Your task to perform on an android device: check android version Image 0: 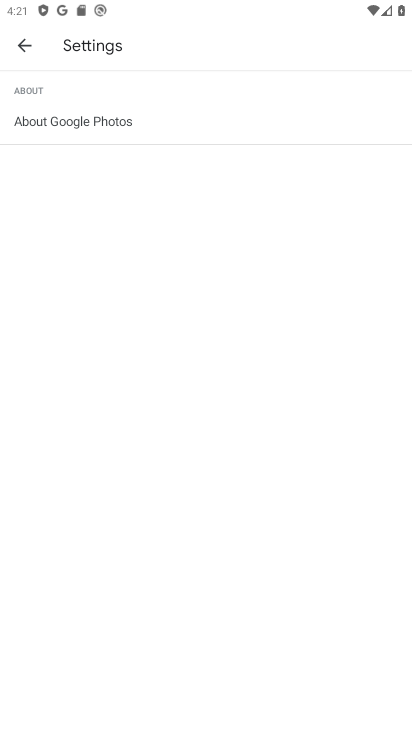
Step 0: press home button
Your task to perform on an android device: check android version Image 1: 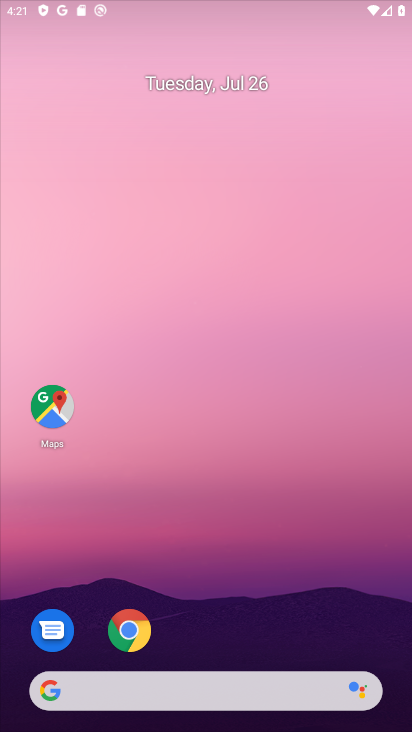
Step 1: drag from (300, 619) to (269, 198)
Your task to perform on an android device: check android version Image 2: 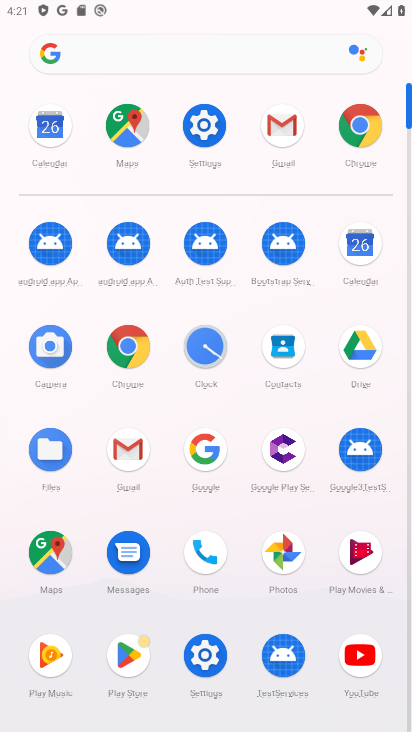
Step 2: click (209, 121)
Your task to perform on an android device: check android version Image 3: 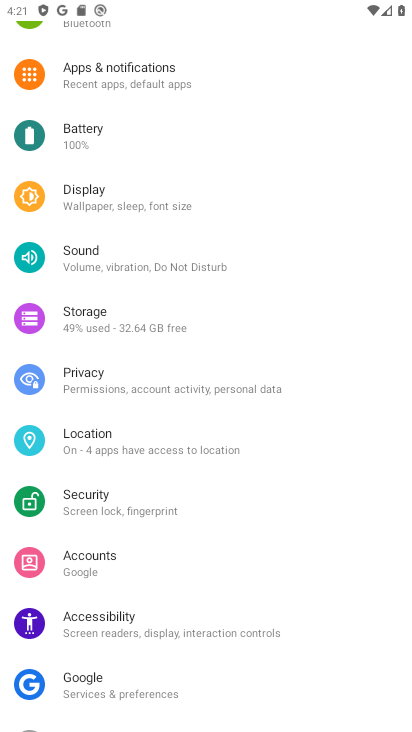
Step 3: drag from (250, 635) to (267, 88)
Your task to perform on an android device: check android version Image 4: 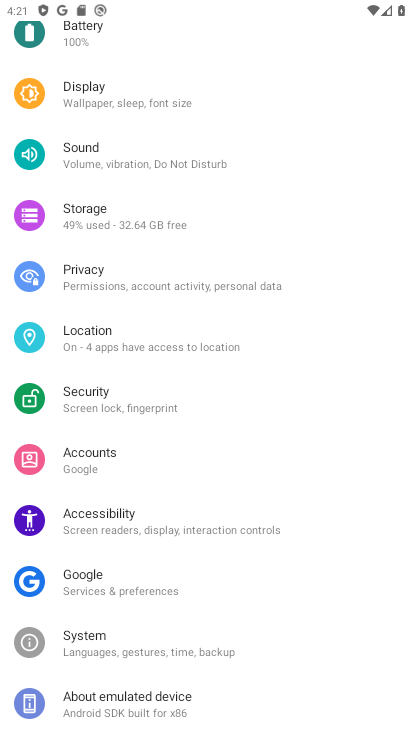
Step 4: click (169, 713)
Your task to perform on an android device: check android version Image 5: 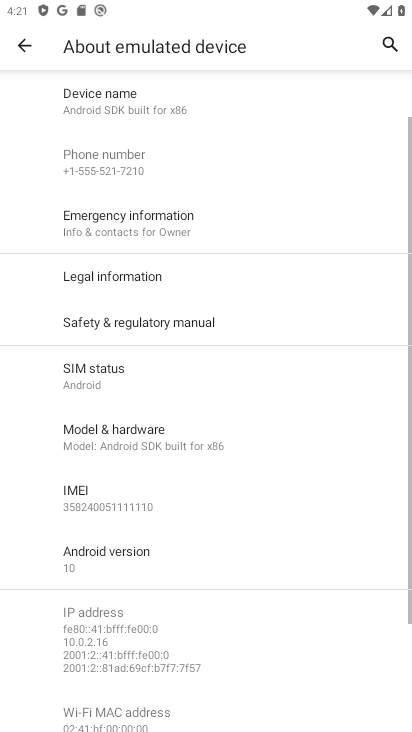
Step 5: drag from (233, 647) to (239, 163)
Your task to perform on an android device: check android version Image 6: 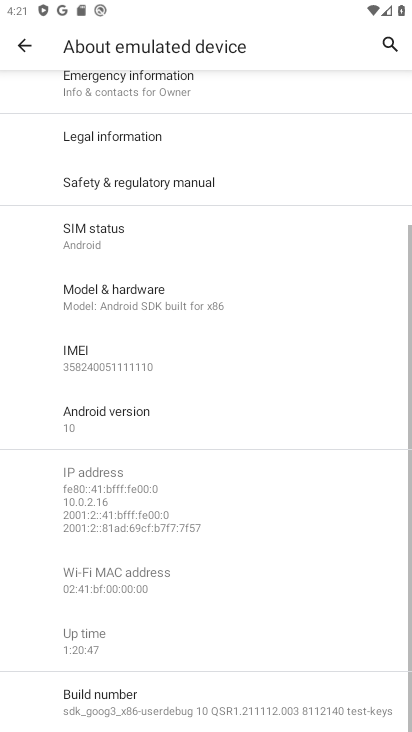
Step 6: click (102, 429)
Your task to perform on an android device: check android version Image 7: 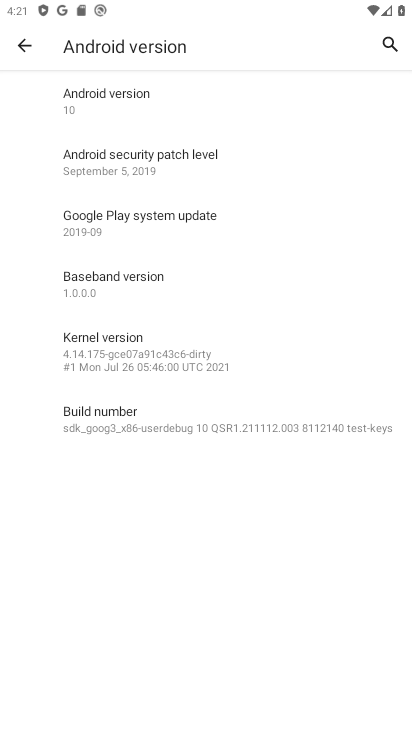
Step 7: click (125, 96)
Your task to perform on an android device: check android version Image 8: 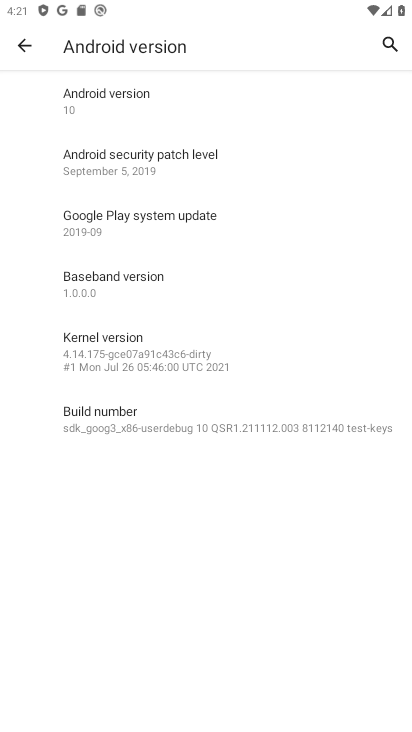
Step 8: task complete